Your task to perform on an android device: Open Youtube and go to "Your channel" Image 0: 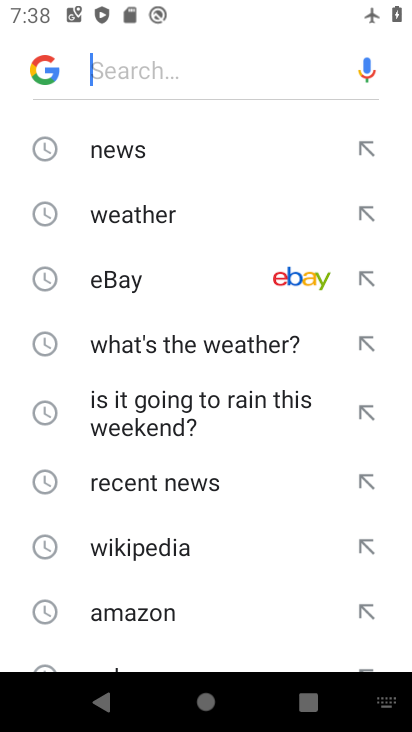
Step 0: press home button
Your task to perform on an android device: Open Youtube and go to "Your channel" Image 1: 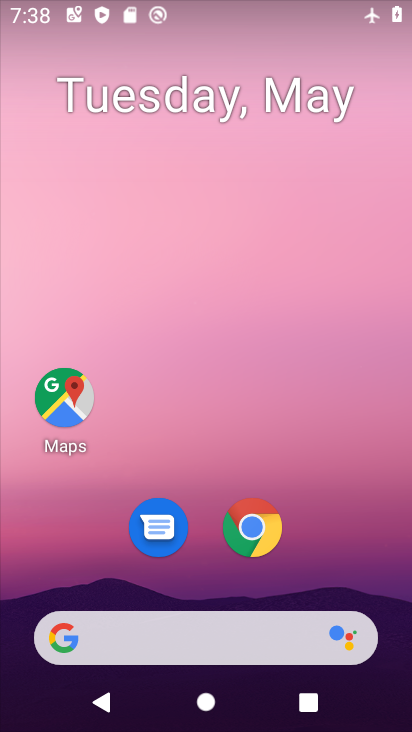
Step 1: drag from (305, 578) to (244, 166)
Your task to perform on an android device: Open Youtube and go to "Your channel" Image 2: 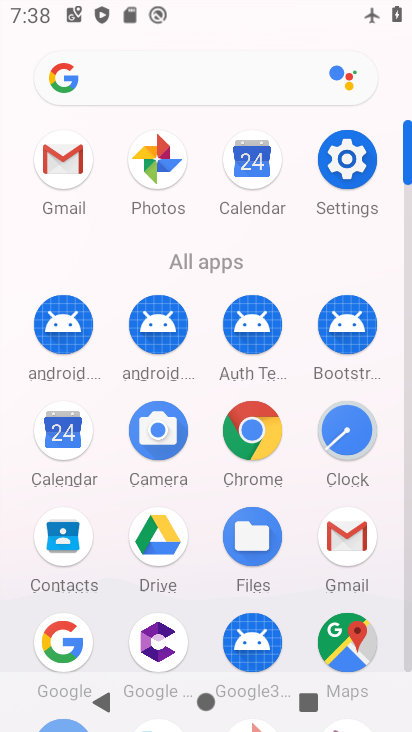
Step 2: drag from (200, 611) to (232, 304)
Your task to perform on an android device: Open Youtube and go to "Your channel" Image 3: 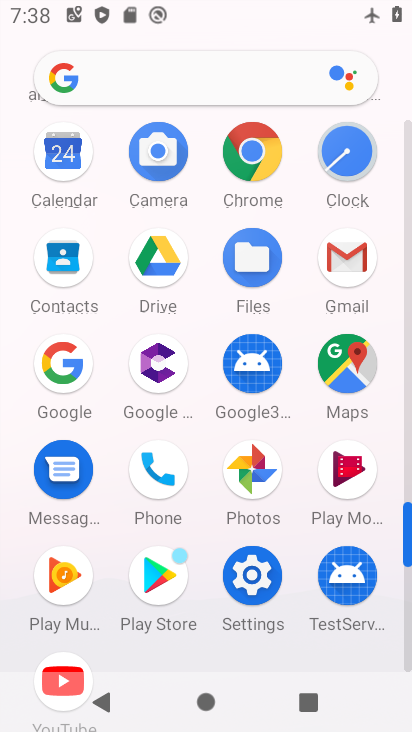
Step 3: drag from (202, 617) to (199, 408)
Your task to perform on an android device: Open Youtube and go to "Your channel" Image 4: 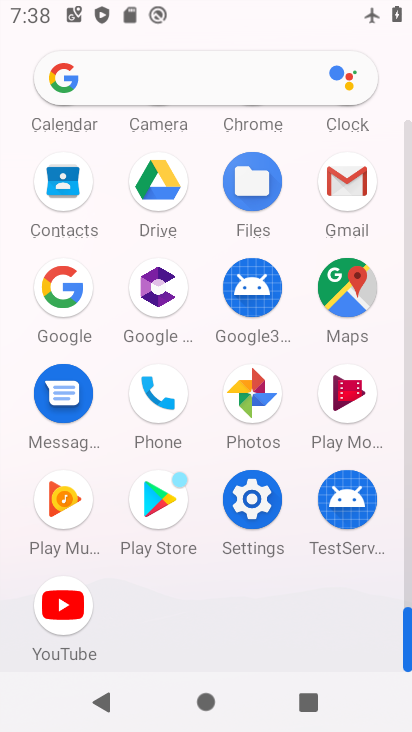
Step 4: click (62, 606)
Your task to perform on an android device: Open Youtube and go to "Your channel" Image 5: 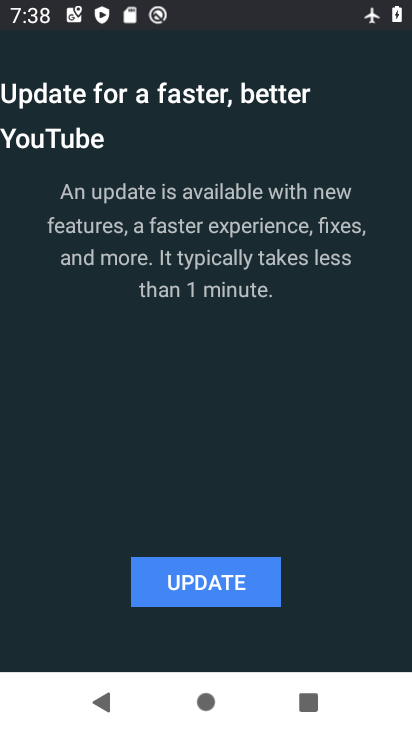
Step 5: click (232, 573)
Your task to perform on an android device: Open Youtube and go to "Your channel" Image 6: 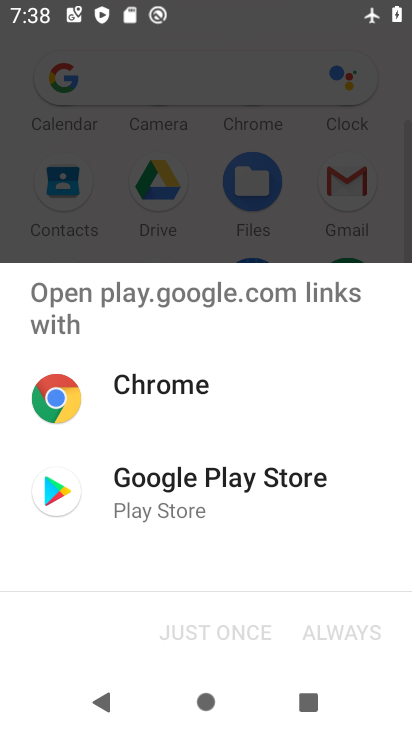
Step 6: click (195, 485)
Your task to perform on an android device: Open Youtube and go to "Your channel" Image 7: 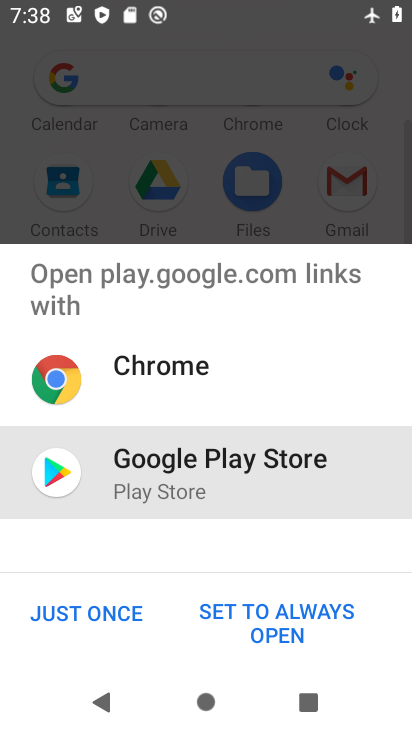
Step 7: click (91, 618)
Your task to perform on an android device: Open Youtube and go to "Your channel" Image 8: 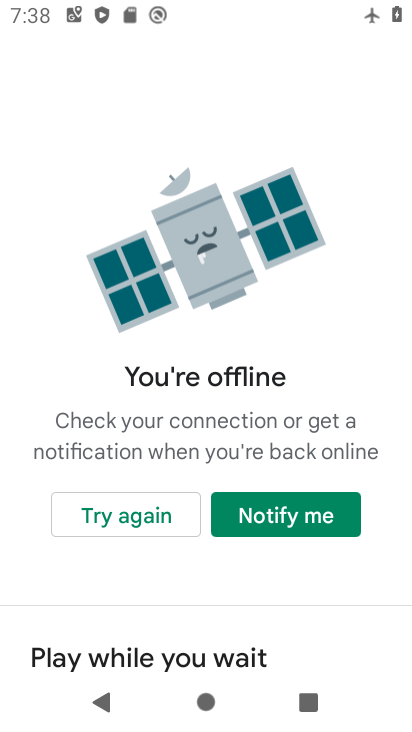
Step 8: task complete